Your task to perform on an android device: Open Chrome and go to the settings page Image 0: 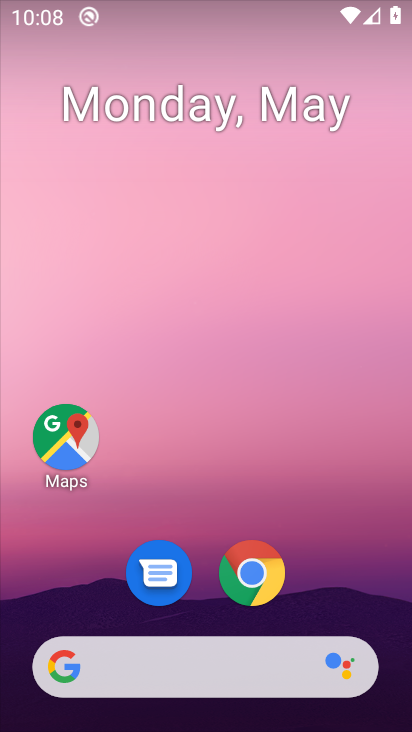
Step 0: click (258, 581)
Your task to perform on an android device: Open Chrome and go to the settings page Image 1: 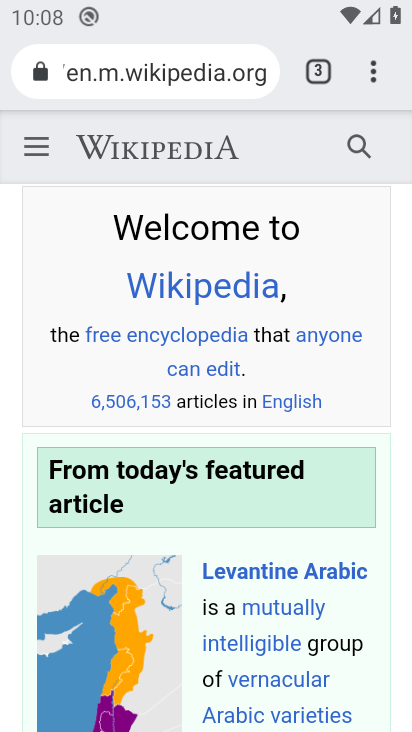
Step 1: task complete